Your task to perform on an android device: toggle notification dots Image 0: 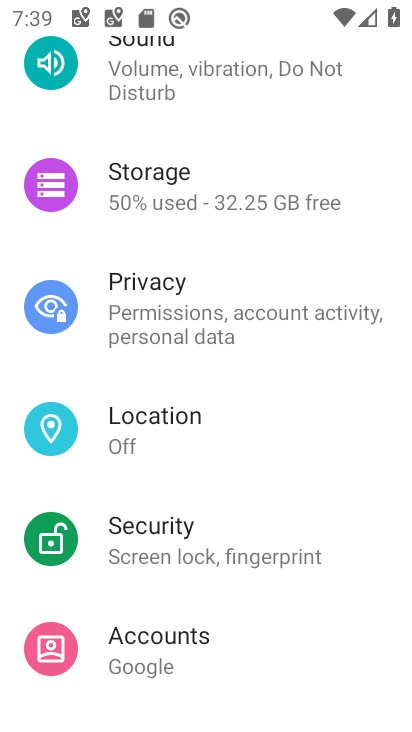
Step 0: press home button
Your task to perform on an android device: toggle notification dots Image 1: 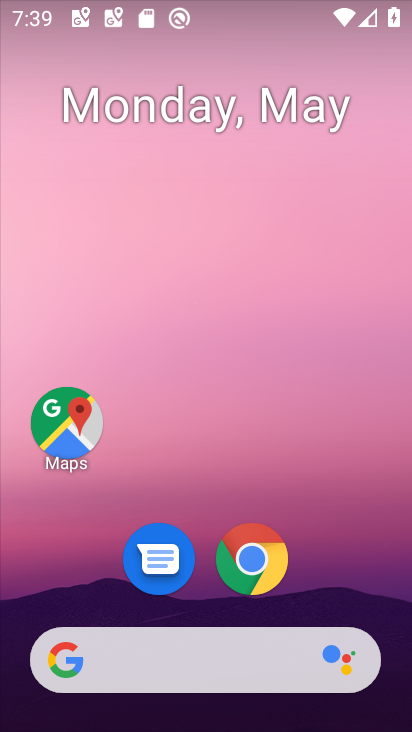
Step 1: drag from (390, 650) to (209, 165)
Your task to perform on an android device: toggle notification dots Image 2: 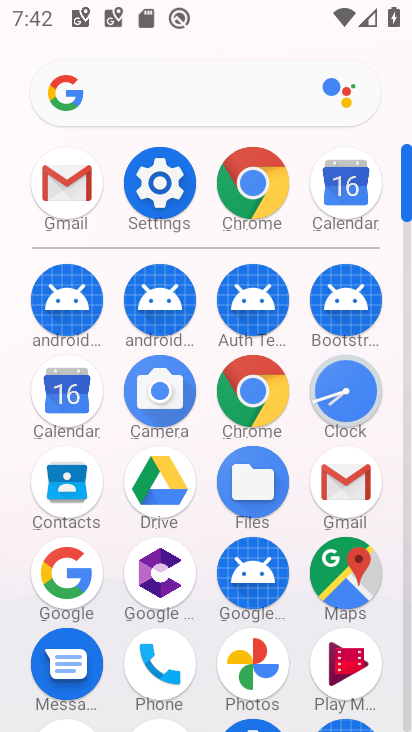
Step 2: click (148, 200)
Your task to perform on an android device: toggle notification dots Image 3: 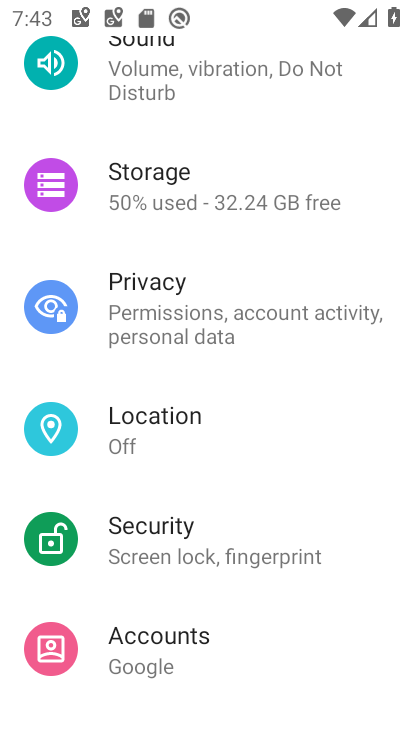
Step 3: drag from (190, 272) to (131, 706)
Your task to perform on an android device: toggle notification dots Image 4: 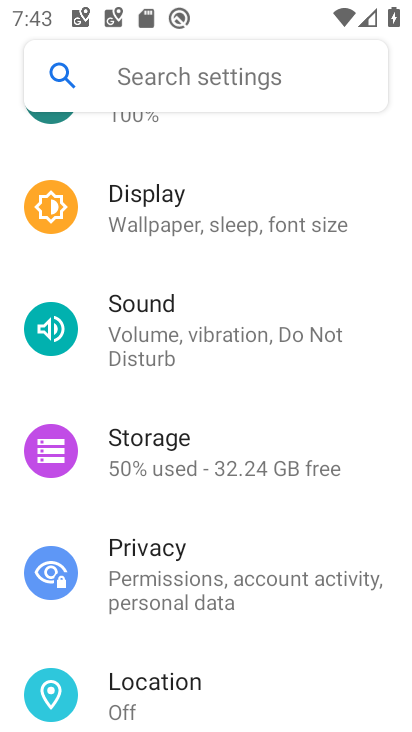
Step 4: drag from (252, 229) to (197, 646)
Your task to perform on an android device: toggle notification dots Image 5: 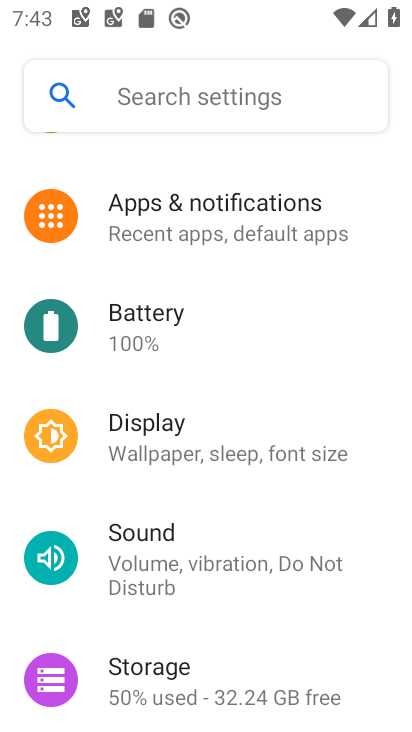
Step 5: click (262, 219)
Your task to perform on an android device: toggle notification dots Image 6: 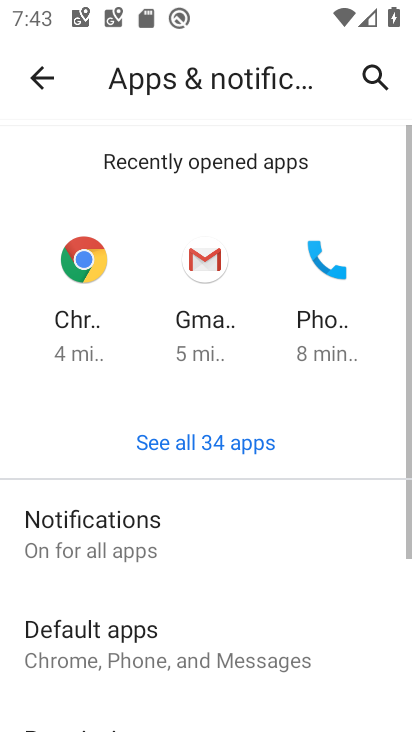
Step 6: click (158, 525)
Your task to perform on an android device: toggle notification dots Image 7: 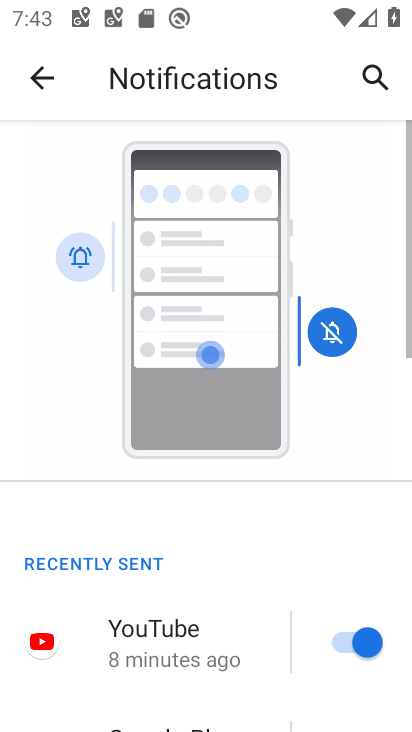
Step 7: drag from (181, 614) to (210, 79)
Your task to perform on an android device: toggle notification dots Image 8: 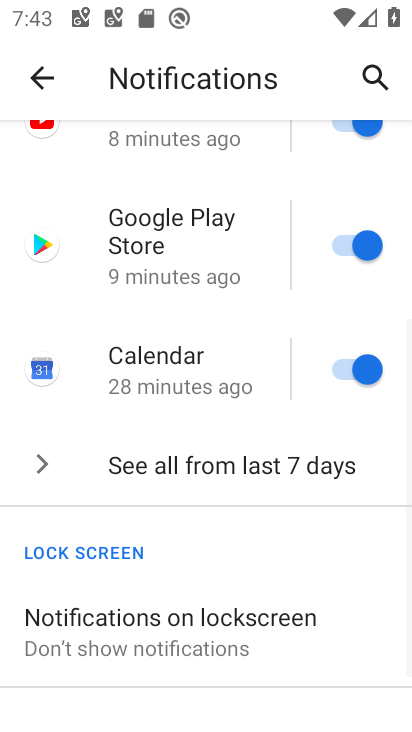
Step 8: drag from (99, 656) to (179, 200)
Your task to perform on an android device: toggle notification dots Image 9: 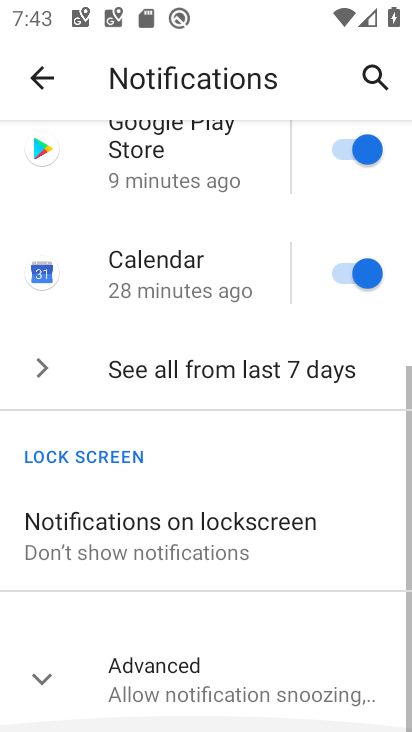
Step 9: click (169, 691)
Your task to perform on an android device: toggle notification dots Image 10: 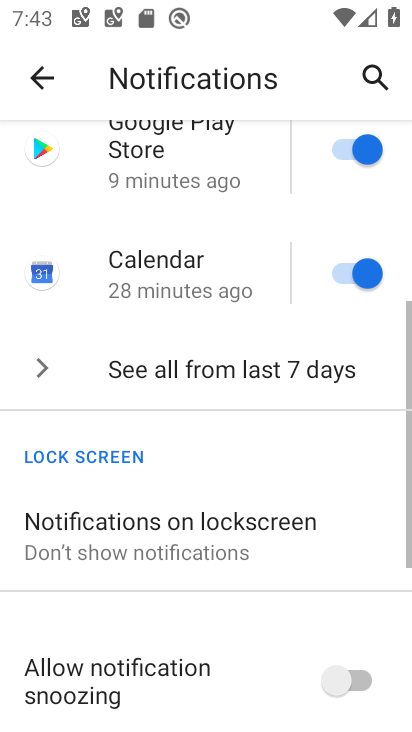
Step 10: drag from (151, 684) to (206, 144)
Your task to perform on an android device: toggle notification dots Image 11: 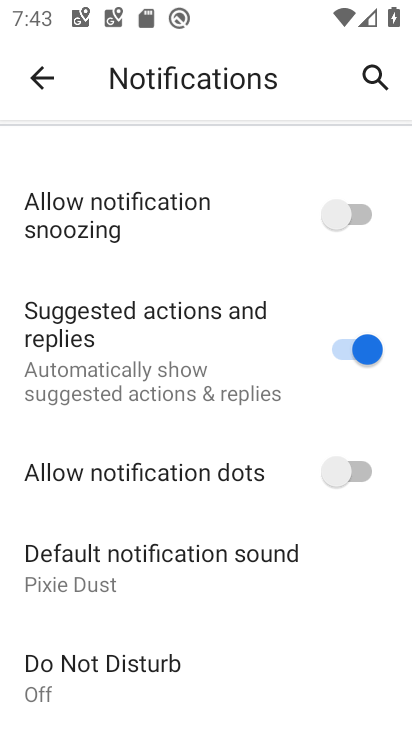
Step 11: click (298, 462)
Your task to perform on an android device: toggle notification dots Image 12: 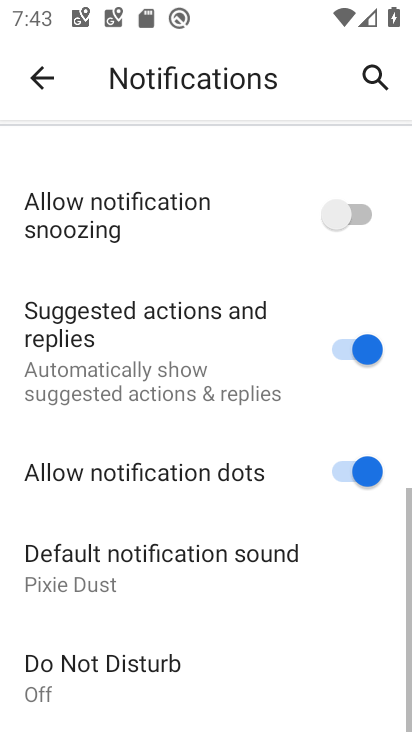
Step 12: task complete